Your task to perform on an android device: Search for sushi restaurants on Maps Image 0: 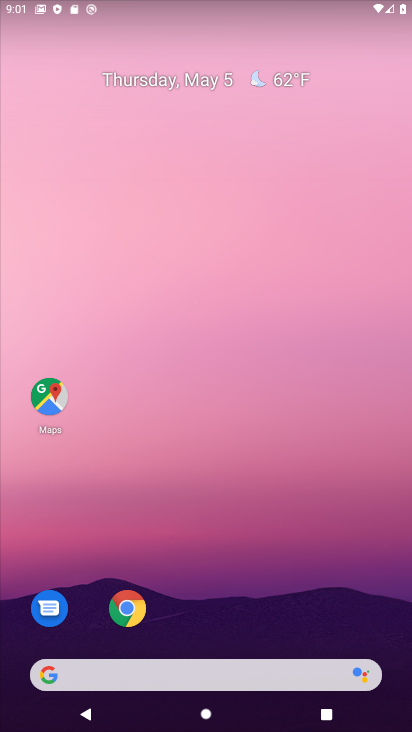
Step 0: drag from (203, 558) to (130, 3)
Your task to perform on an android device: Search for sushi restaurants on Maps Image 1: 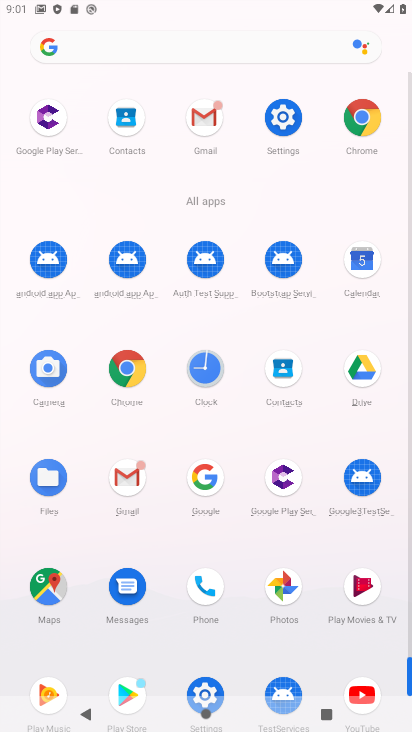
Step 1: click (43, 582)
Your task to perform on an android device: Search for sushi restaurants on Maps Image 2: 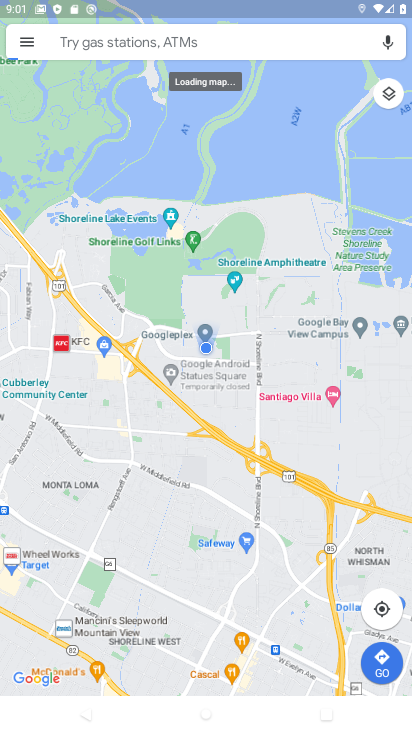
Step 2: click (225, 47)
Your task to perform on an android device: Search for sushi restaurants on Maps Image 3: 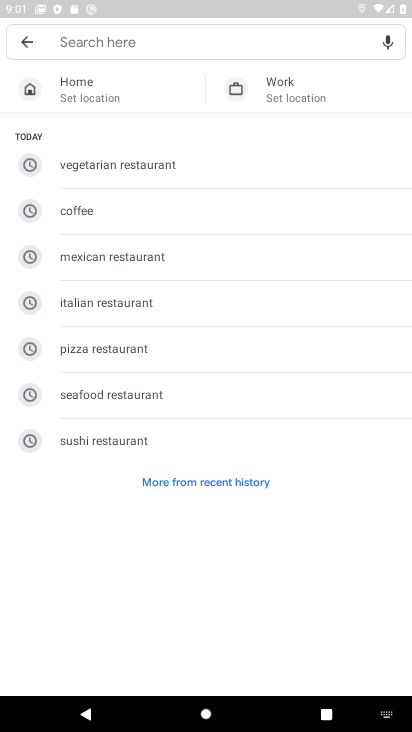
Step 3: click (120, 442)
Your task to perform on an android device: Search for sushi restaurants on Maps Image 4: 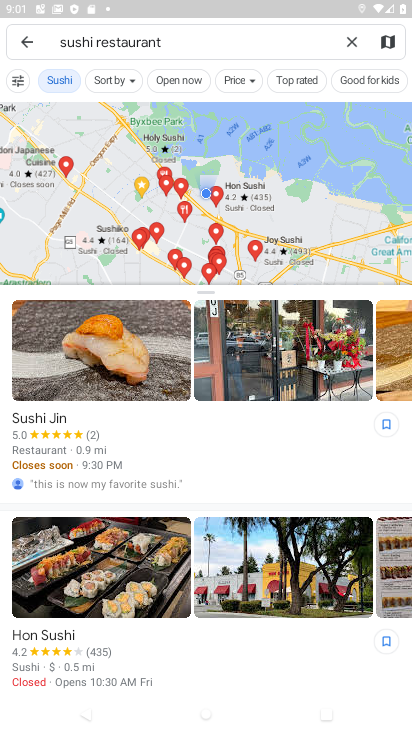
Step 4: task complete